Your task to perform on an android device: How much does a 3 bedroom apartment rent for in Boston? Image 0: 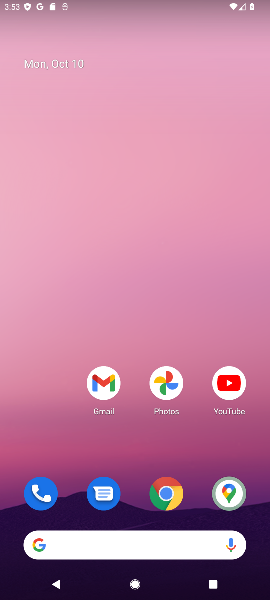
Step 0: click (166, 545)
Your task to perform on an android device: How much does a 3 bedroom apartment rent for in Boston? Image 1: 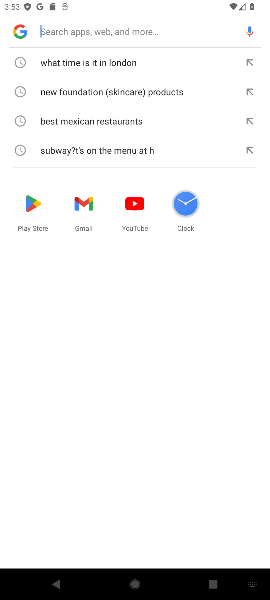
Step 1: type " 3 bedroom apartment rent for in Boston"
Your task to perform on an android device: How much does a 3 bedroom apartment rent for in Boston? Image 2: 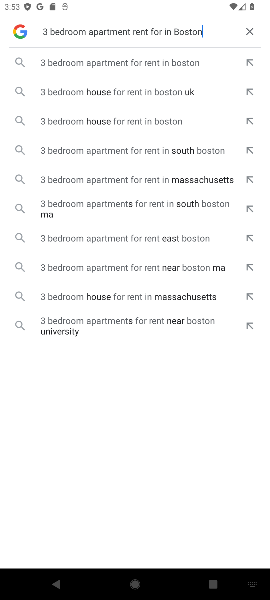
Step 2: click (95, 65)
Your task to perform on an android device: How much does a 3 bedroom apartment rent for in Boston? Image 3: 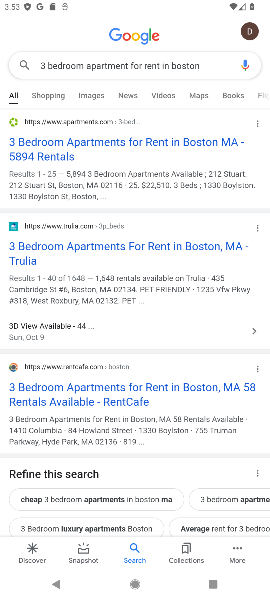
Step 3: task complete